Your task to perform on an android device: When is my next appointment? Image 0: 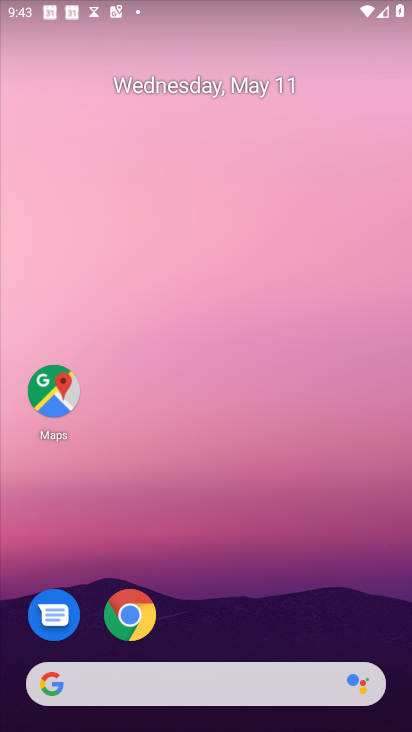
Step 0: press home button
Your task to perform on an android device: When is my next appointment? Image 1: 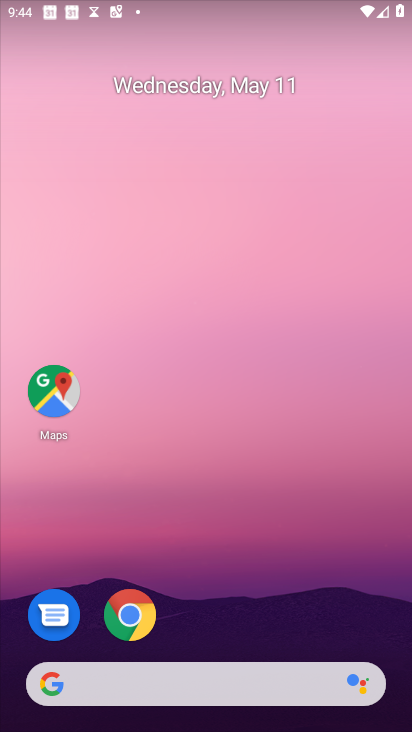
Step 1: drag from (26, 642) to (267, 190)
Your task to perform on an android device: When is my next appointment? Image 2: 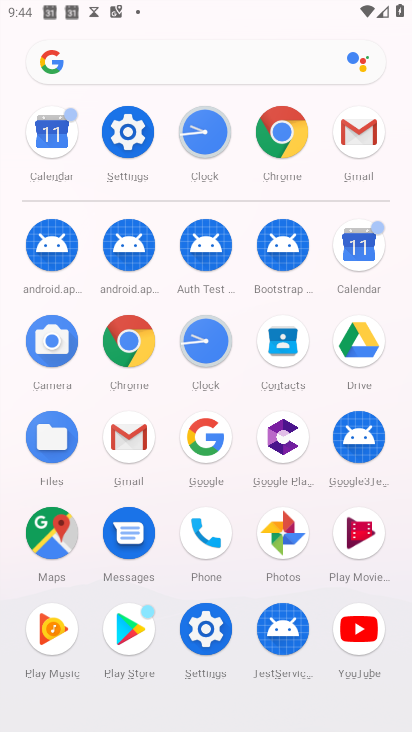
Step 2: click (375, 249)
Your task to perform on an android device: When is my next appointment? Image 3: 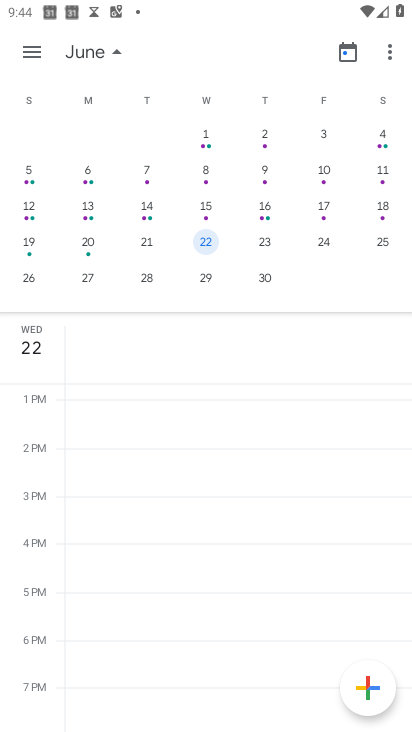
Step 3: click (70, 54)
Your task to perform on an android device: When is my next appointment? Image 4: 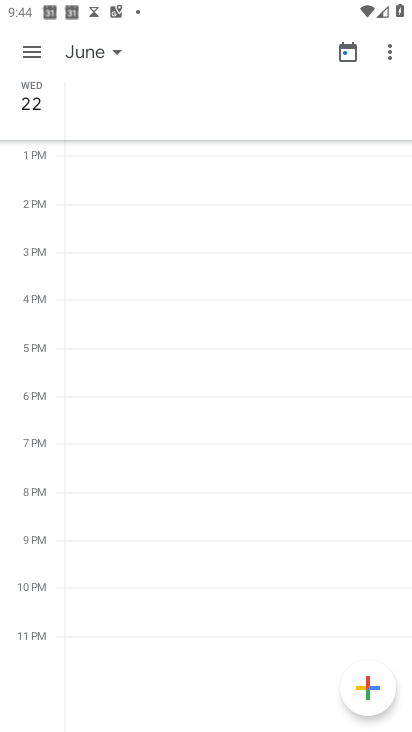
Step 4: click (27, 44)
Your task to perform on an android device: When is my next appointment? Image 5: 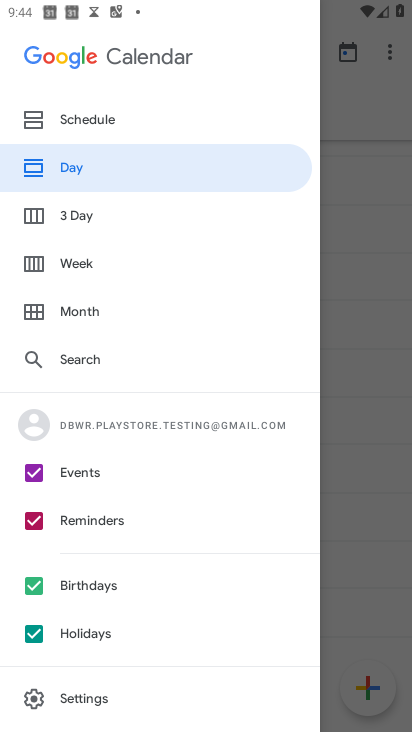
Step 5: click (135, 109)
Your task to perform on an android device: When is my next appointment? Image 6: 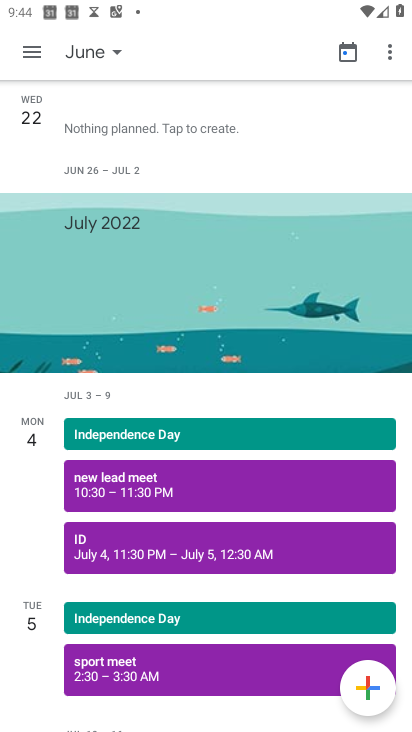
Step 6: task complete